Your task to perform on an android device: turn notification dots off Image 0: 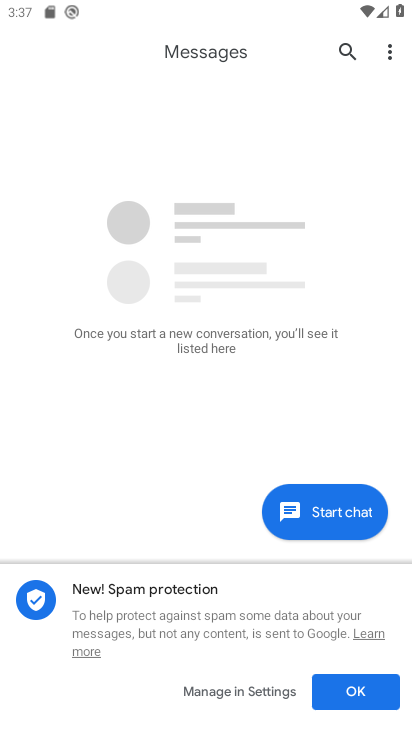
Step 0: press back button
Your task to perform on an android device: turn notification dots off Image 1: 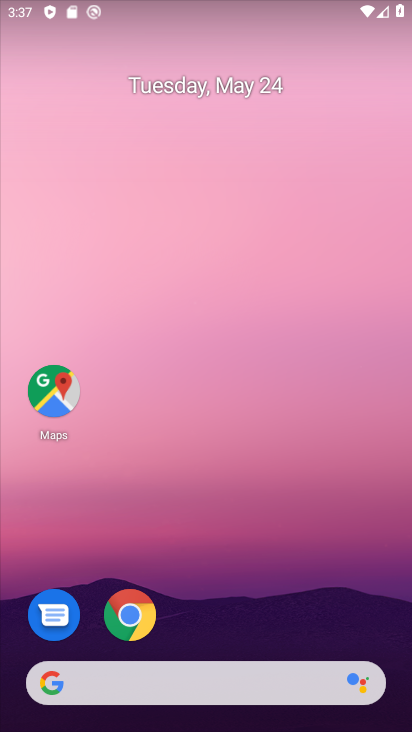
Step 1: drag from (235, 591) to (187, 48)
Your task to perform on an android device: turn notification dots off Image 2: 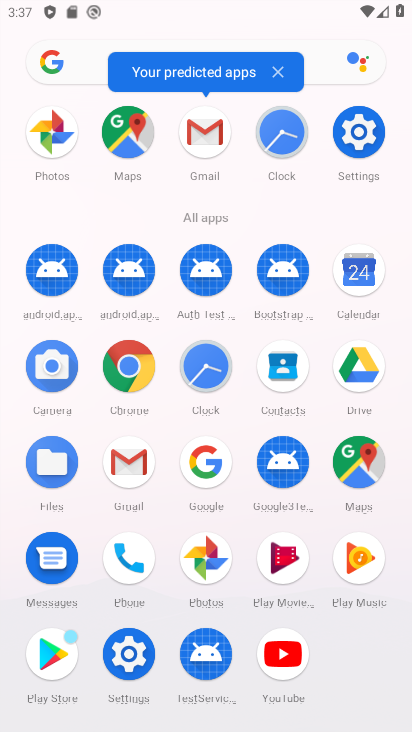
Step 2: click (126, 651)
Your task to perform on an android device: turn notification dots off Image 3: 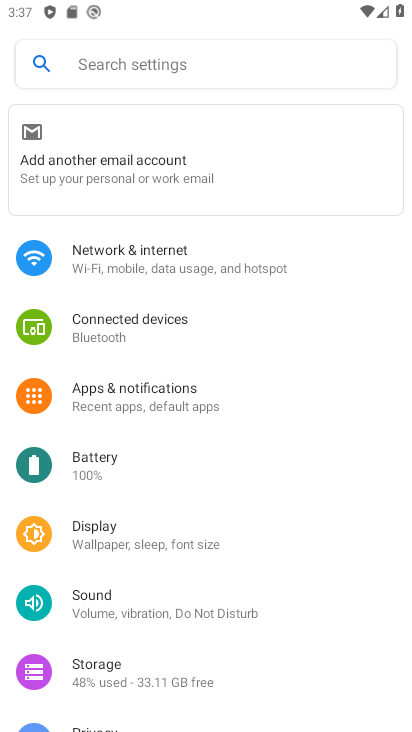
Step 3: click (137, 390)
Your task to perform on an android device: turn notification dots off Image 4: 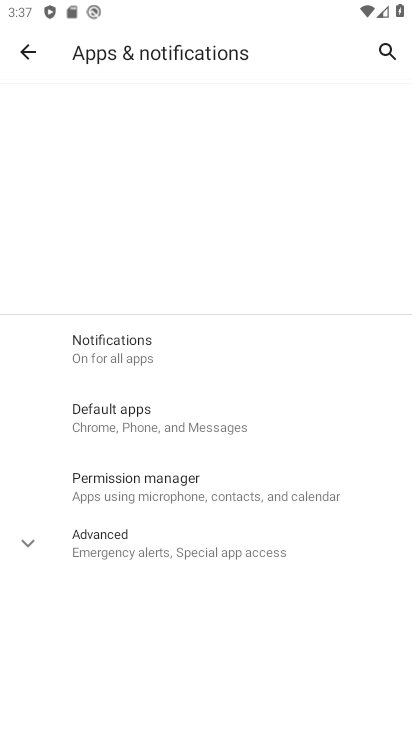
Step 4: click (137, 355)
Your task to perform on an android device: turn notification dots off Image 5: 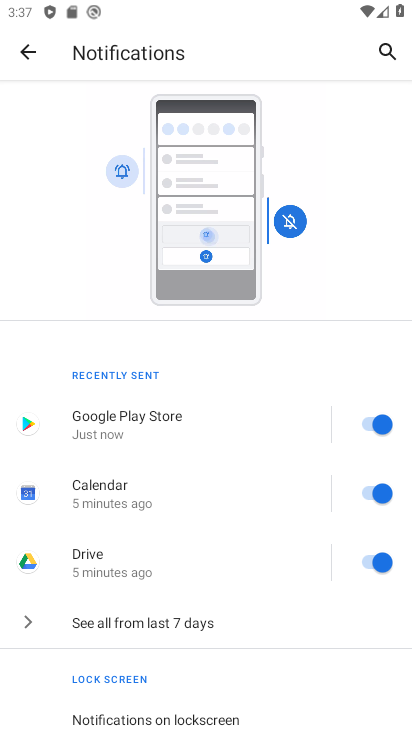
Step 5: drag from (184, 537) to (248, 137)
Your task to perform on an android device: turn notification dots off Image 6: 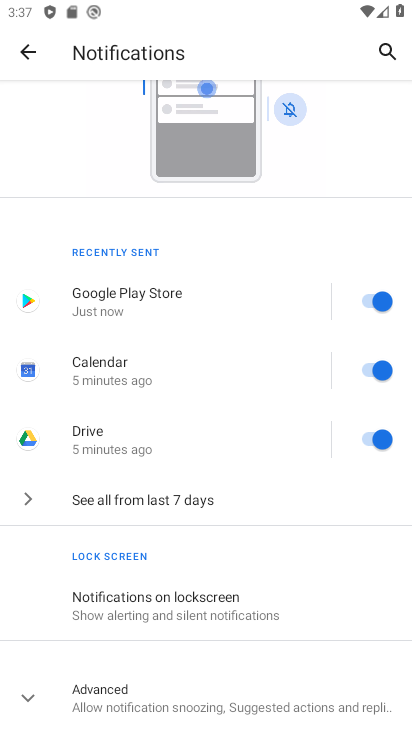
Step 6: click (74, 685)
Your task to perform on an android device: turn notification dots off Image 7: 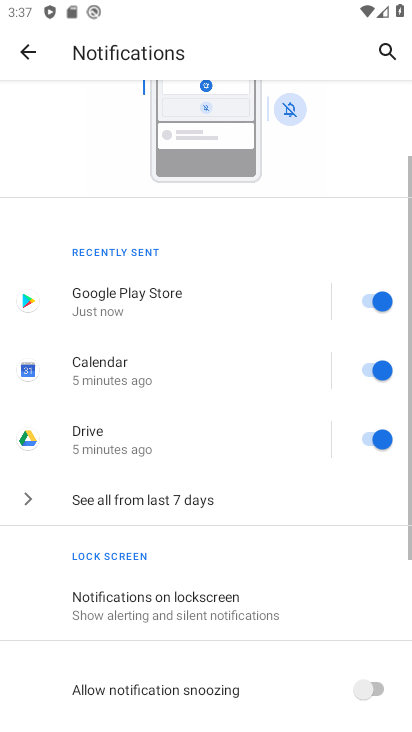
Step 7: drag from (182, 683) to (256, 237)
Your task to perform on an android device: turn notification dots off Image 8: 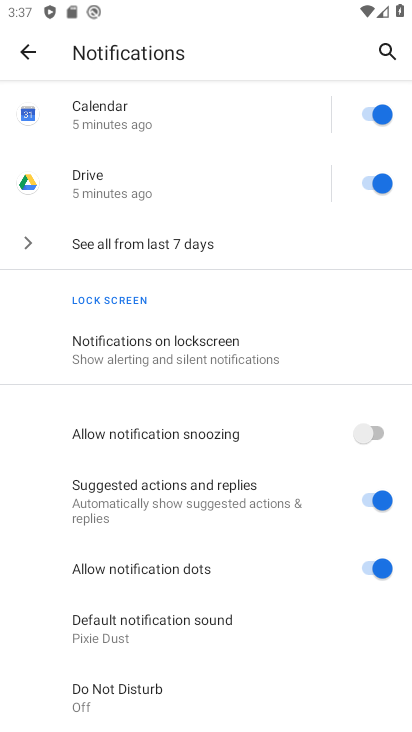
Step 8: click (369, 567)
Your task to perform on an android device: turn notification dots off Image 9: 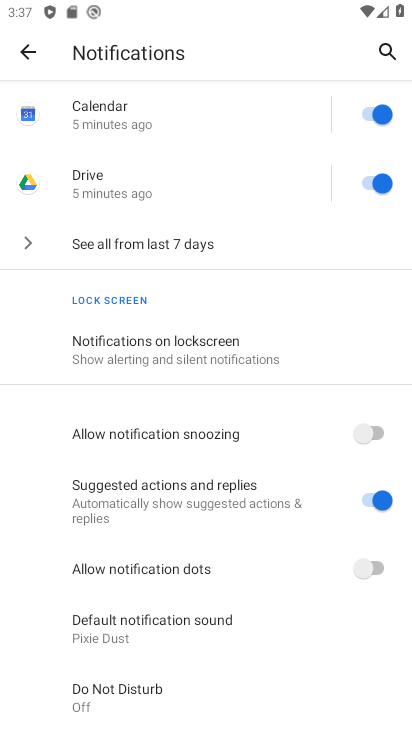
Step 9: task complete